Your task to perform on an android device: Open location settings Image 0: 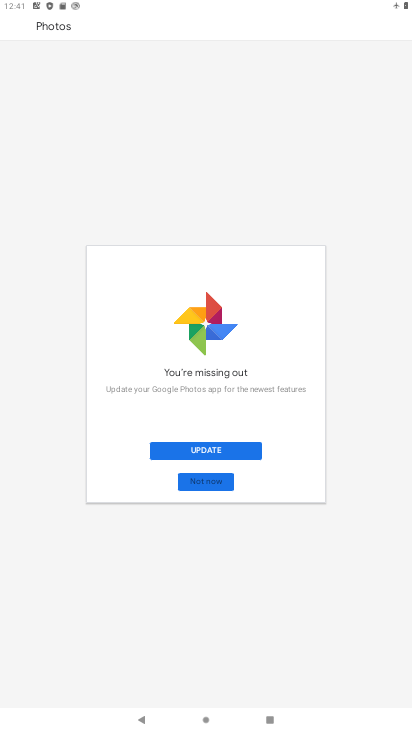
Step 0: press home button
Your task to perform on an android device: Open location settings Image 1: 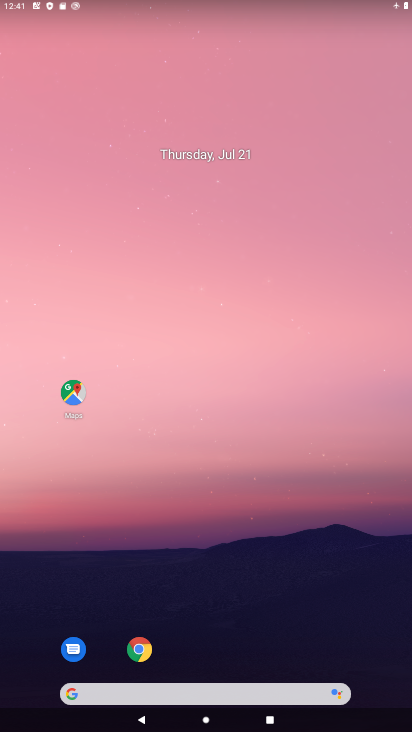
Step 1: drag from (229, 726) to (200, 282)
Your task to perform on an android device: Open location settings Image 2: 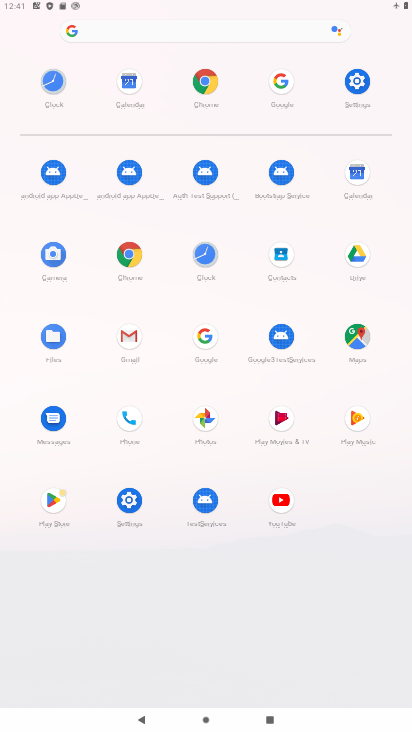
Step 2: click (362, 76)
Your task to perform on an android device: Open location settings Image 3: 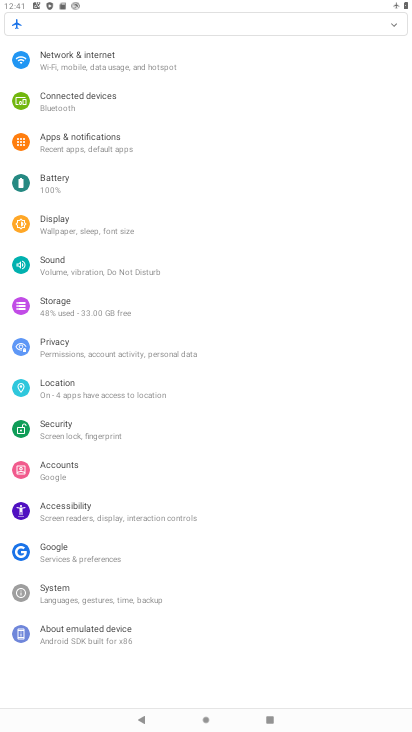
Step 3: click (56, 381)
Your task to perform on an android device: Open location settings Image 4: 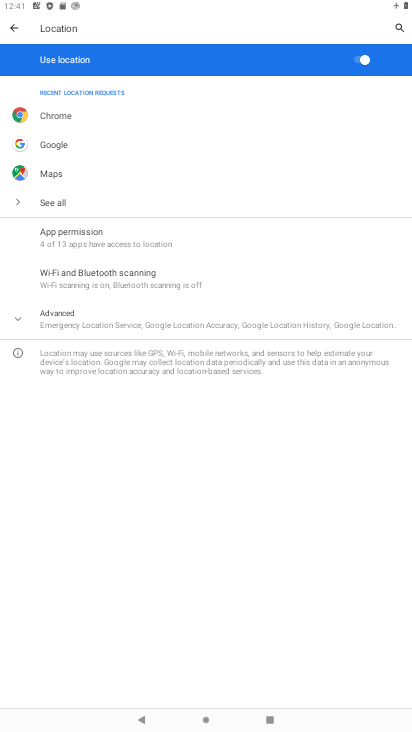
Step 4: task complete